Your task to perform on an android device: Show the shopping cart on ebay. Add "bose soundlink mini" to the cart on ebay Image 0: 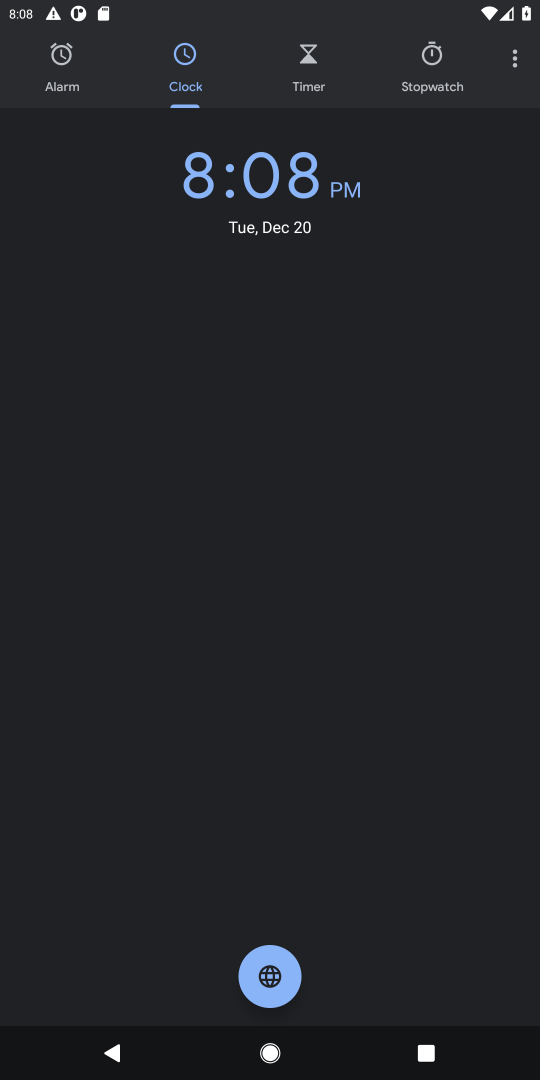
Step 0: press home button
Your task to perform on an android device: Show the shopping cart on ebay. Add "bose soundlink mini" to the cart on ebay Image 1: 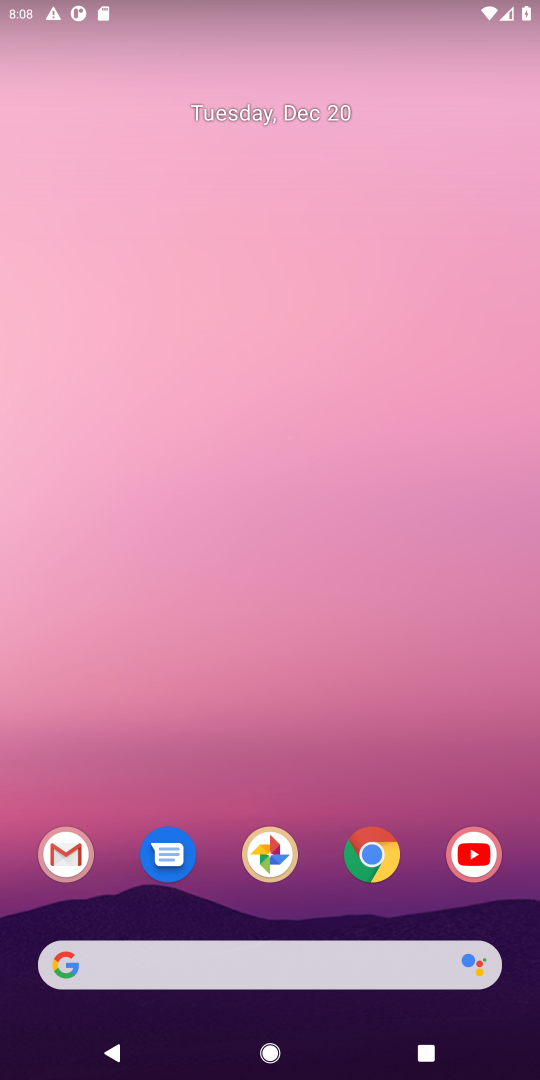
Step 1: click (367, 866)
Your task to perform on an android device: Show the shopping cart on ebay. Add "bose soundlink mini" to the cart on ebay Image 2: 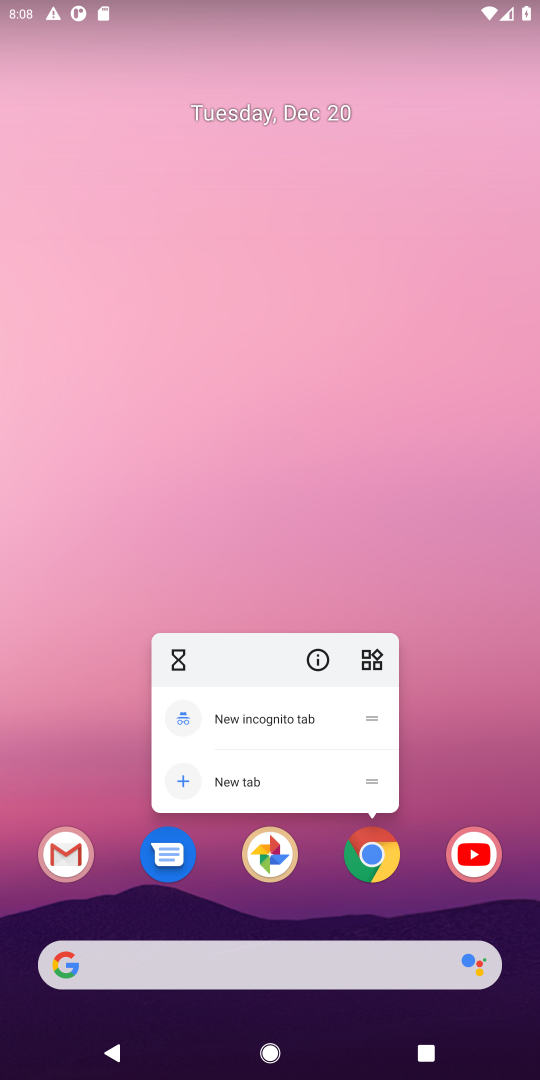
Step 2: click (367, 866)
Your task to perform on an android device: Show the shopping cart on ebay. Add "bose soundlink mini" to the cart on ebay Image 3: 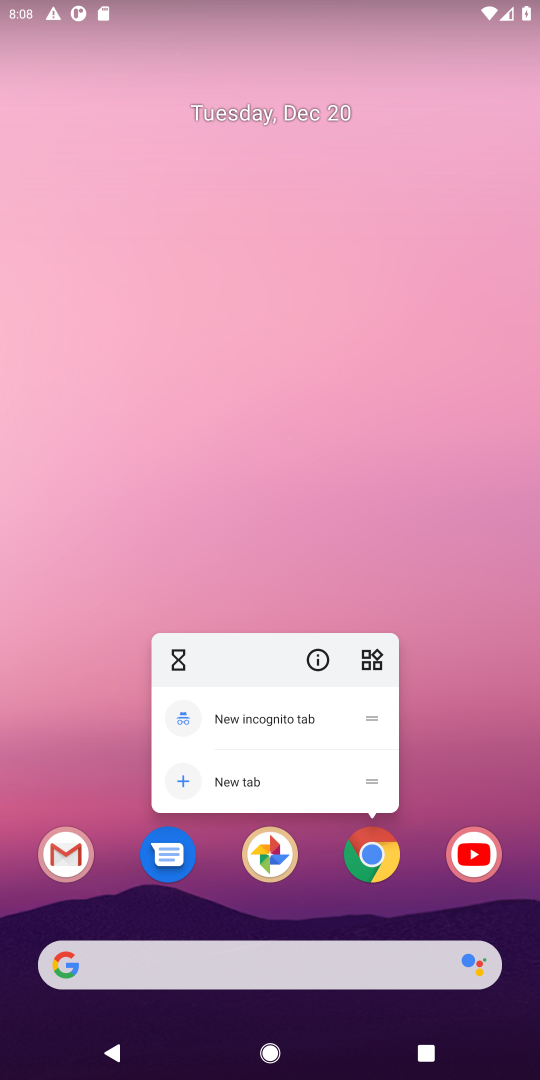
Step 3: click (367, 866)
Your task to perform on an android device: Show the shopping cart on ebay. Add "bose soundlink mini" to the cart on ebay Image 4: 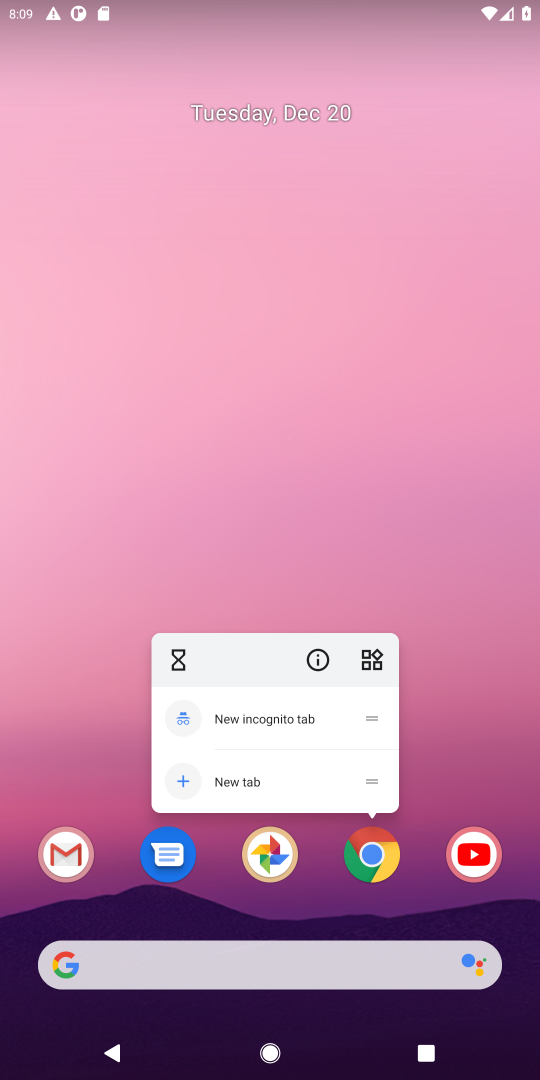
Step 4: click (367, 866)
Your task to perform on an android device: Show the shopping cart on ebay. Add "bose soundlink mini" to the cart on ebay Image 5: 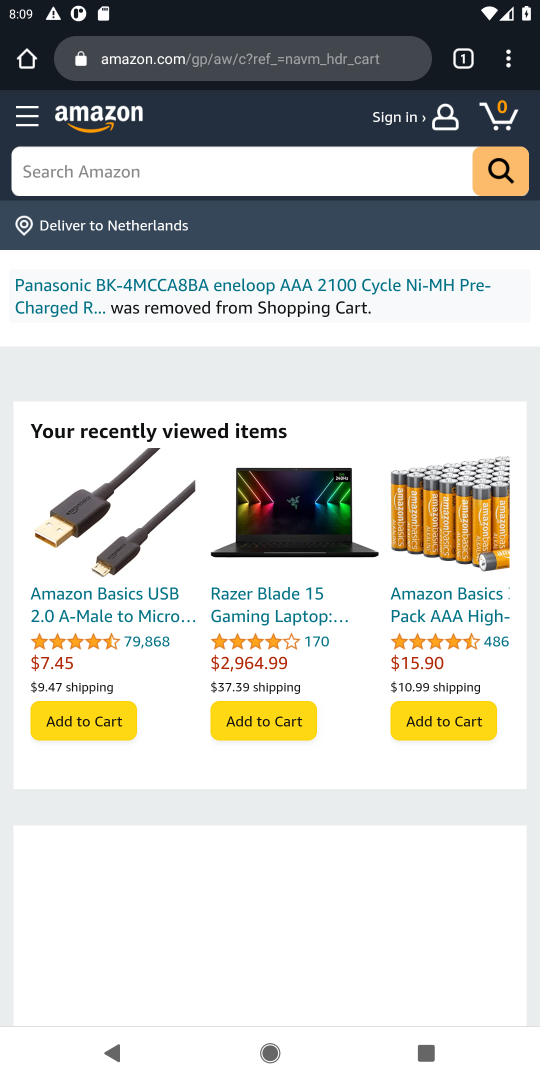
Step 5: click (193, 62)
Your task to perform on an android device: Show the shopping cart on ebay. Add "bose soundlink mini" to the cart on ebay Image 6: 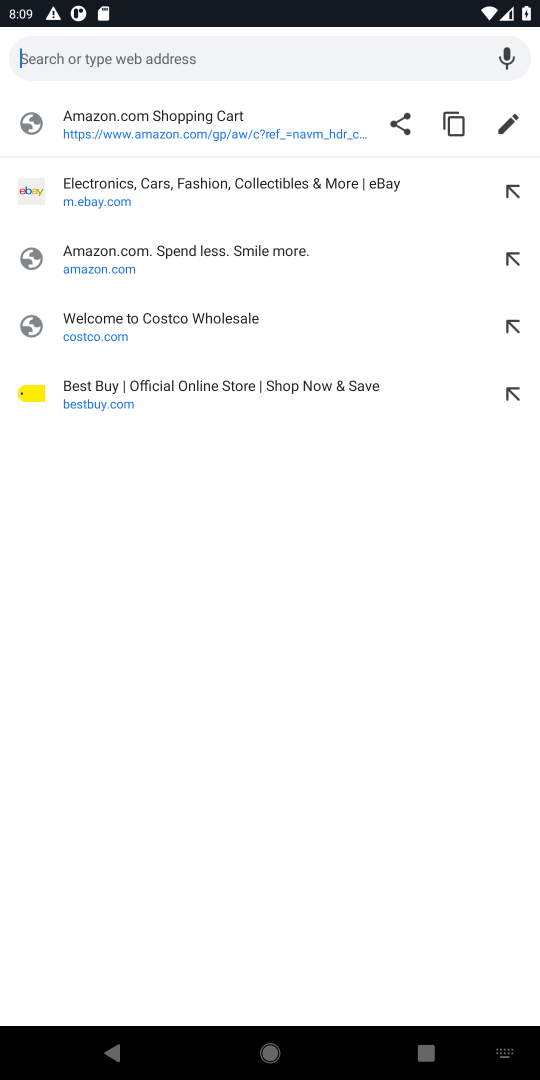
Step 6: click (90, 194)
Your task to perform on an android device: Show the shopping cart on ebay. Add "bose soundlink mini" to the cart on ebay Image 7: 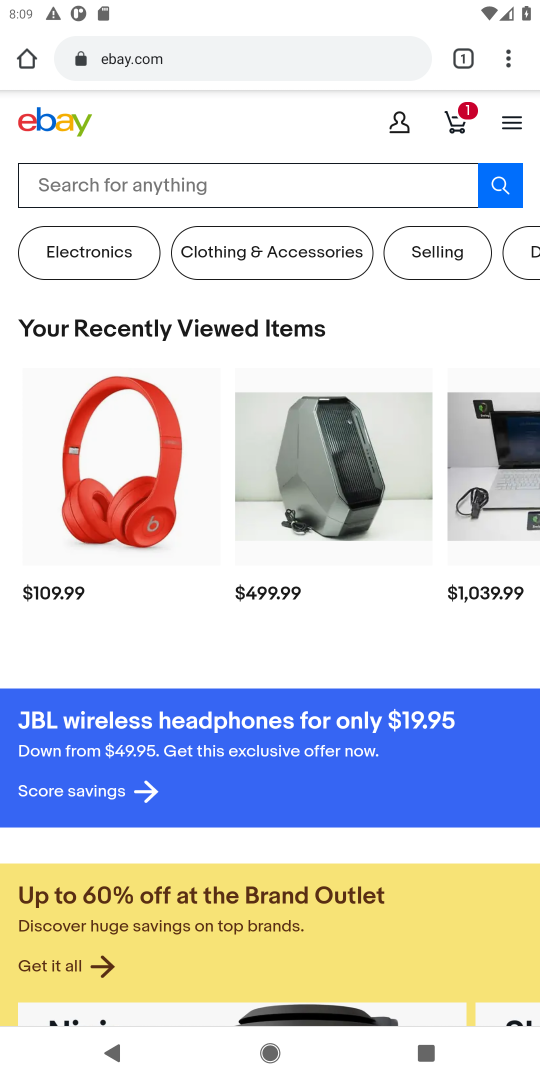
Step 7: click (459, 121)
Your task to perform on an android device: Show the shopping cart on ebay. Add "bose soundlink mini" to the cart on ebay Image 8: 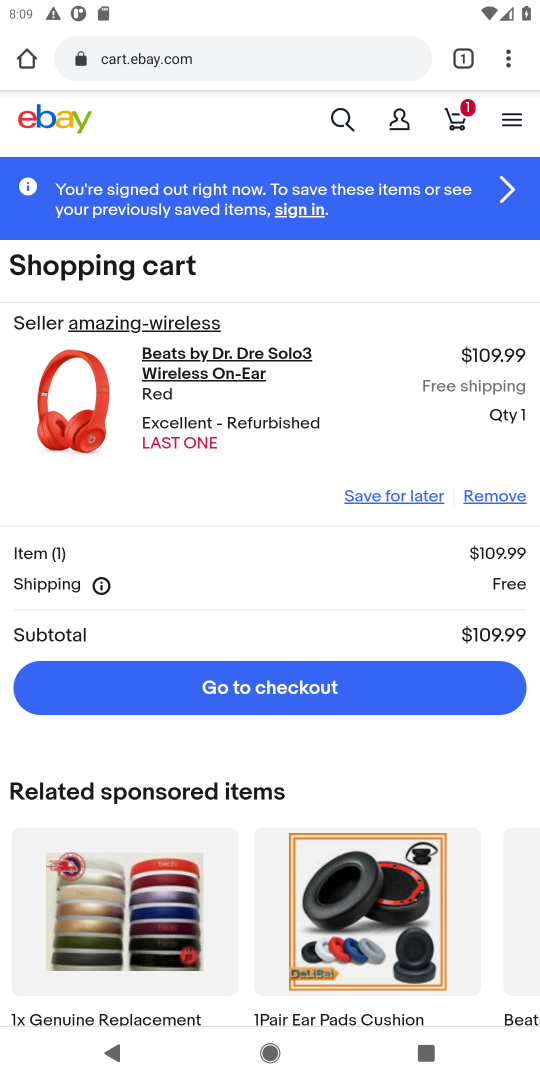
Step 8: click (331, 113)
Your task to perform on an android device: Show the shopping cart on ebay. Add "bose soundlink mini" to the cart on ebay Image 9: 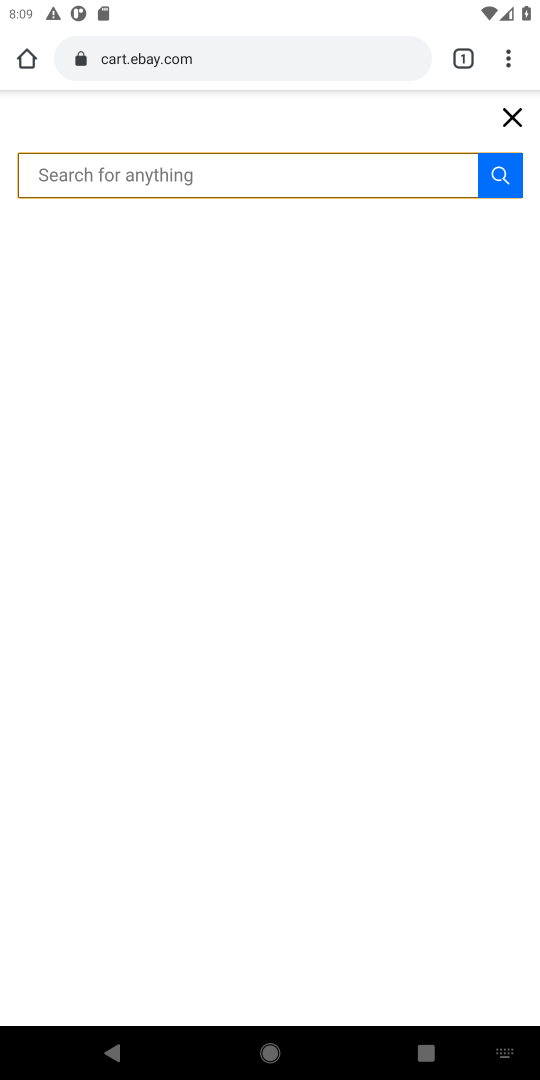
Step 9: type "bose soundlink mini"
Your task to perform on an android device: Show the shopping cart on ebay. Add "bose soundlink mini" to the cart on ebay Image 10: 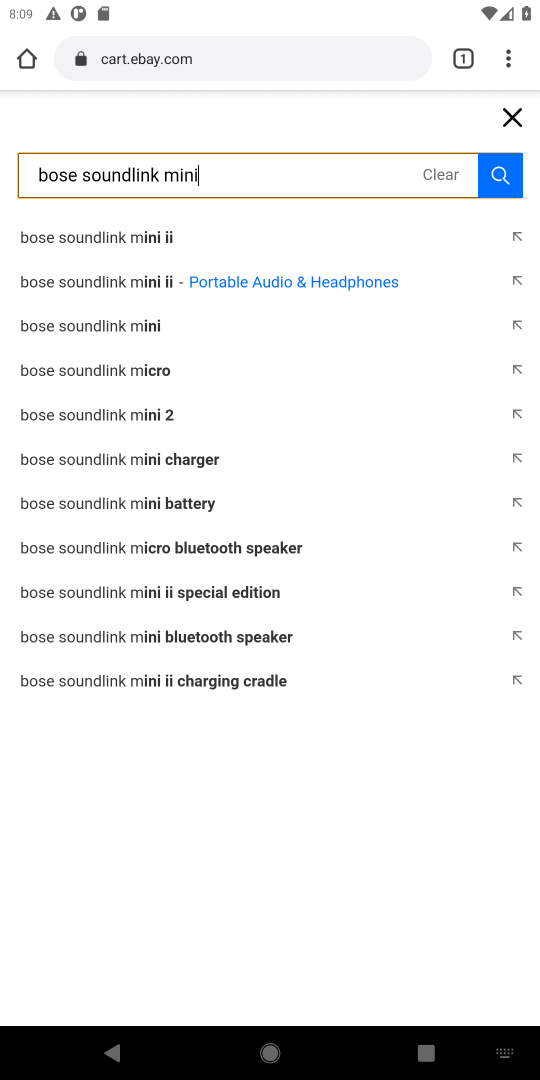
Step 10: click (95, 334)
Your task to perform on an android device: Show the shopping cart on ebay. Add "bose soundlink mini" to the cart on ebay Image 11: 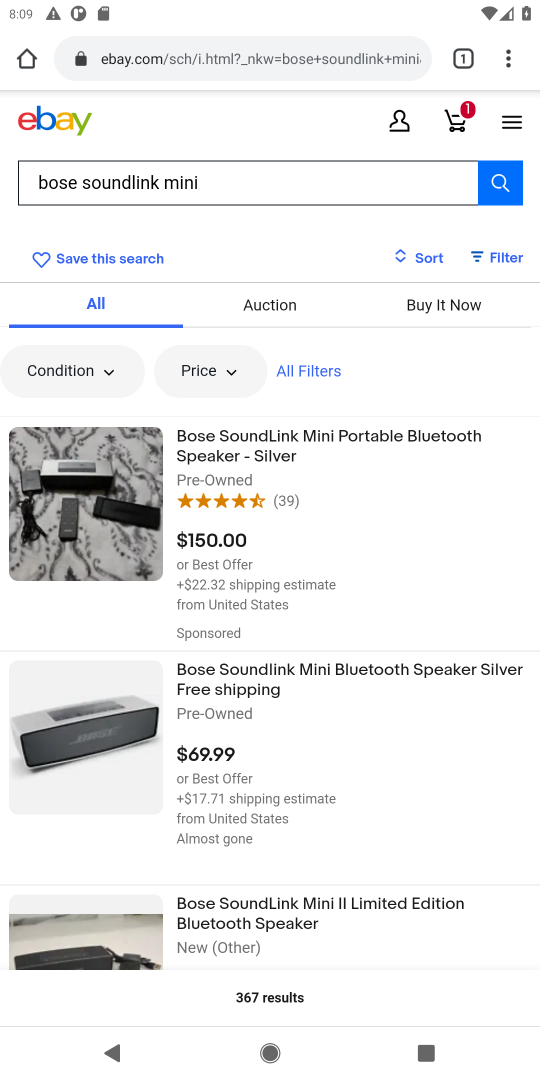
Step 11: click (198, 465)
Your task to perform on an android device: Show the shopping cart on ebay. Add "bose soundlink mini" to the cart on ebay Image 12: 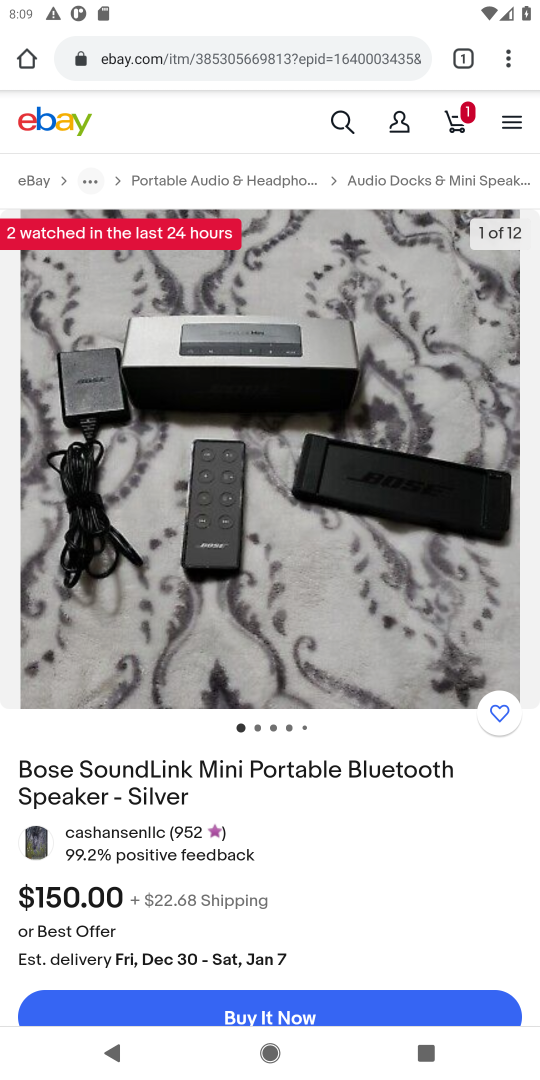
Step 12: drag from (226, 831) to (227, 421)
Your task to perform on an android device: Show the shopping cart on ebay. Add "bose soundlink mini" to the cart on ebay Image 13: 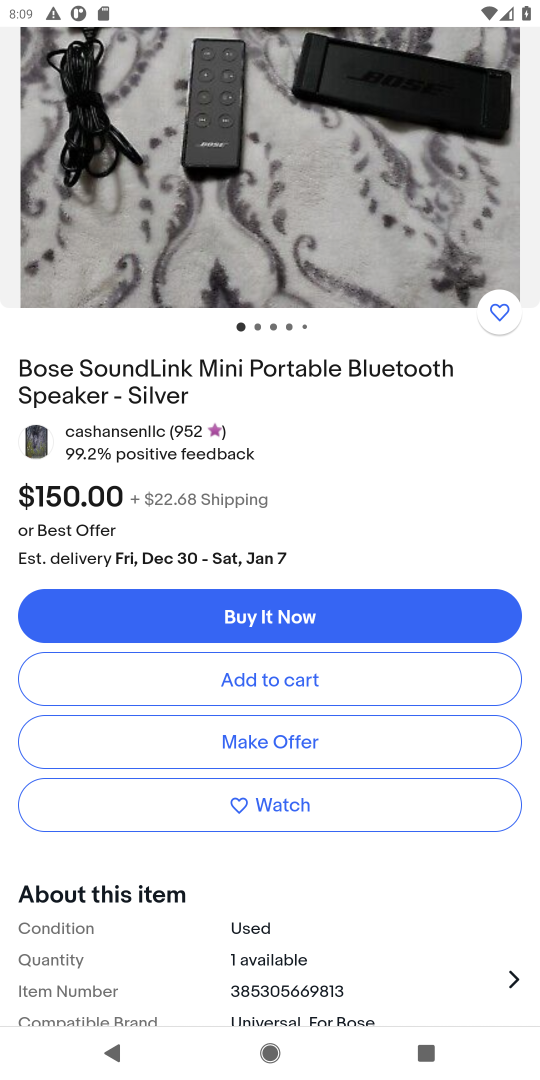
Step 13: click (228, 685)
Your task to perform on an android device: Show the shopping cart on ebay. Add "bose soundlink mini" to the cart on ebay Image 14: 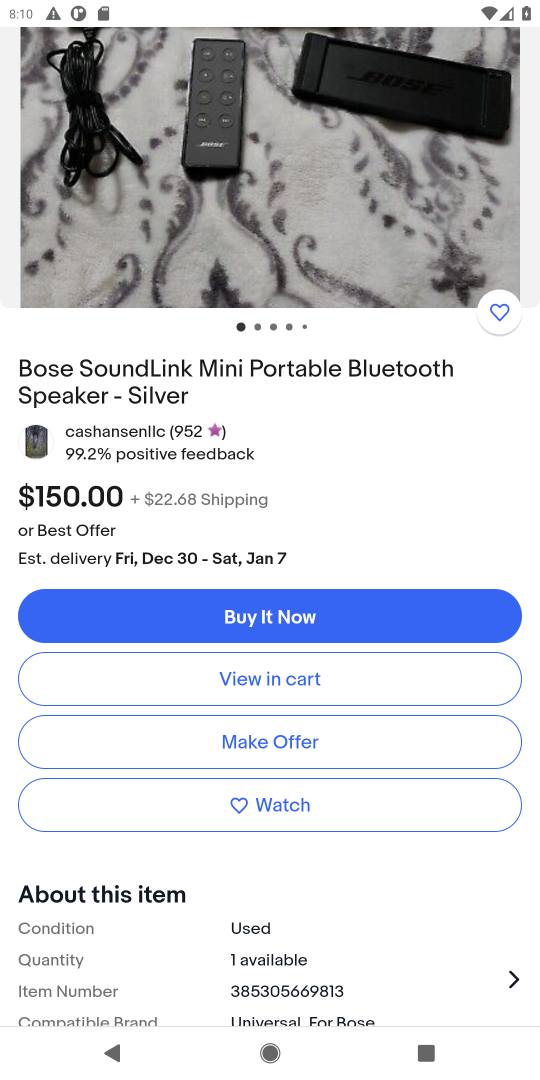
Step 14: task complete